Your task to perform on an android device: turn pop-ups on in chrome Image 0: 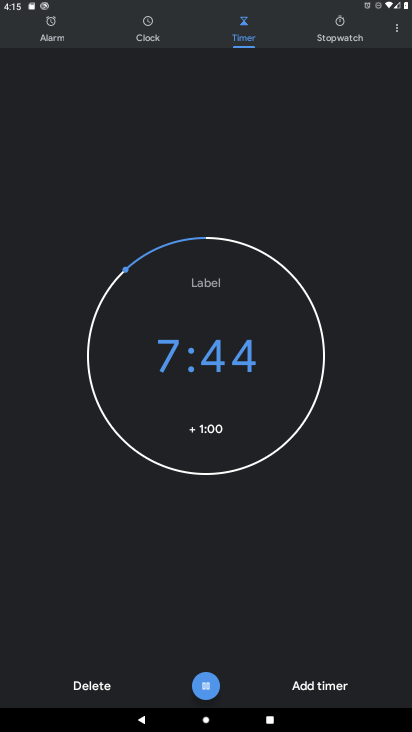
Step 0: press home button
Your task to perform on an android device: turn pop-ups on in chrome Image 1: 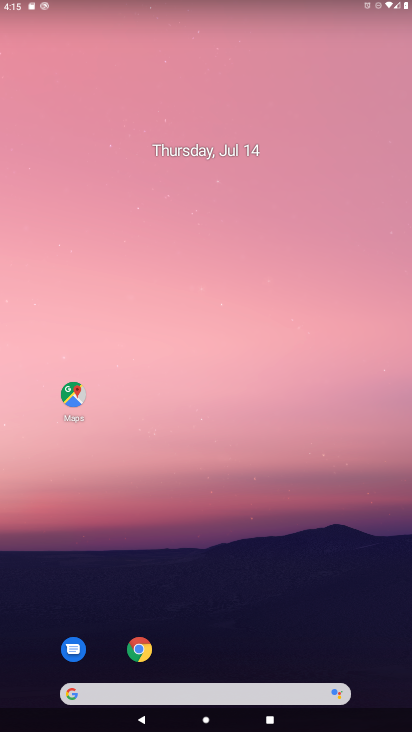
Step 1: click (148, 646)
Your task to perform on an android device: turn pop-ups on in chrome Image 2: 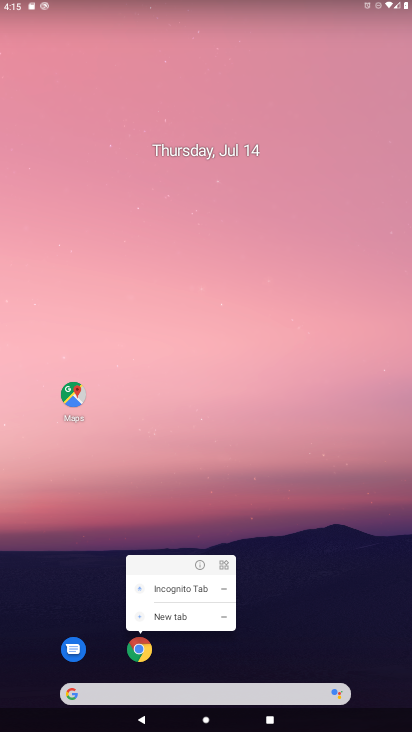
Step 2: click (142, 657)
Your task to perform on an android device: turn pop-ups on in chrome Image 3: 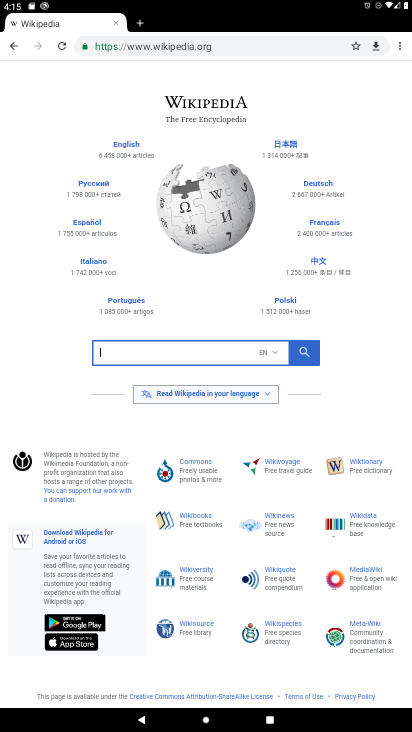
Step 3: click (401, 45)
Your task to perform on an android device: turn pop-ups on in chrome Image 4: 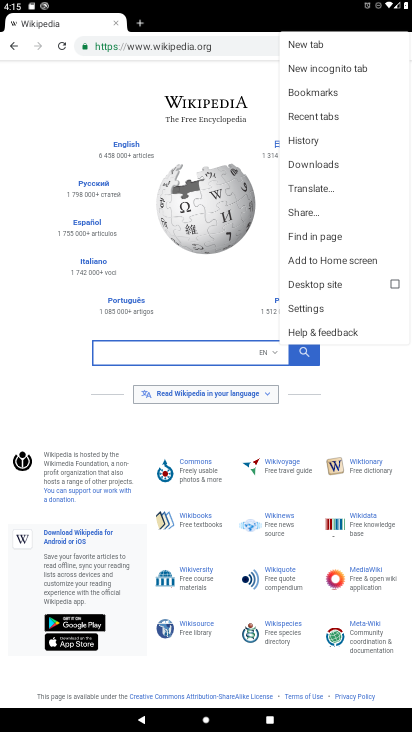
Step 4: click (318, 308)
Your task to perform on an android device: turn pop-ups on in chrome Image 5: 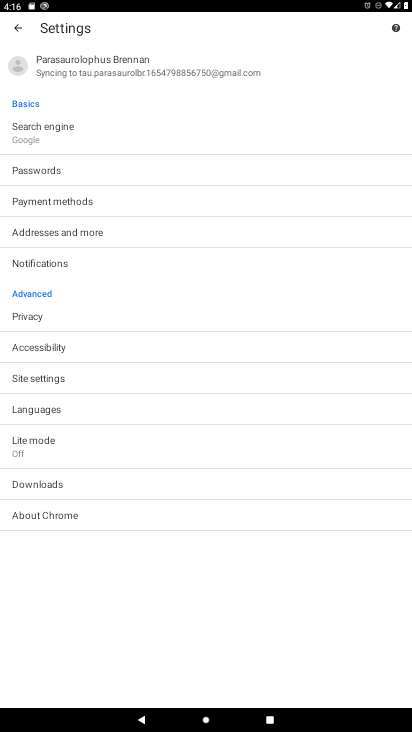
Step 5: click (59, 376)
Your task to perform on an android device: turn pop-ups on in chrome Image 6: 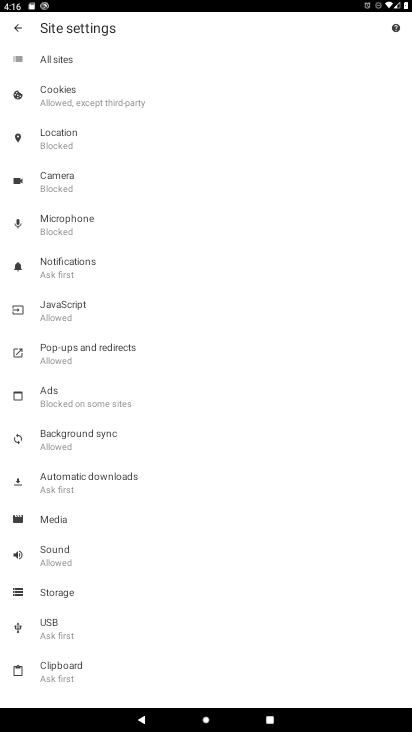
Step 6: click (64, 355)
Your task to perform on an android device: turn pop-ups on in chrome Image 7: 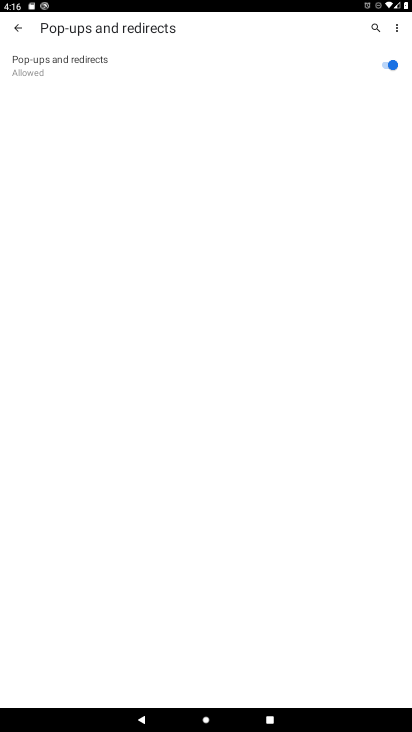
Step 7: task complete